Your task to perform on an android device: toggle pop-ups in chrome Image 0: 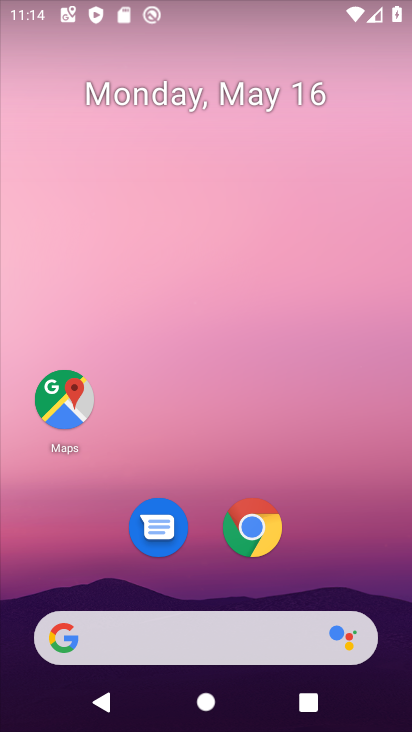
Step 0: drag from (191, 659) to (238, 190)
Your task to perform on an android device: toggle pop-ups in chrome Image 1: 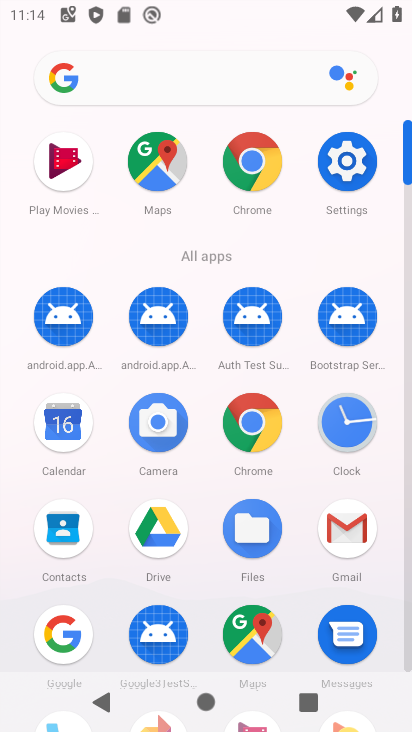
Step 1: click (239, 178)
Your task to perform on an android device: toggle pop-ups in chrome Image 2: 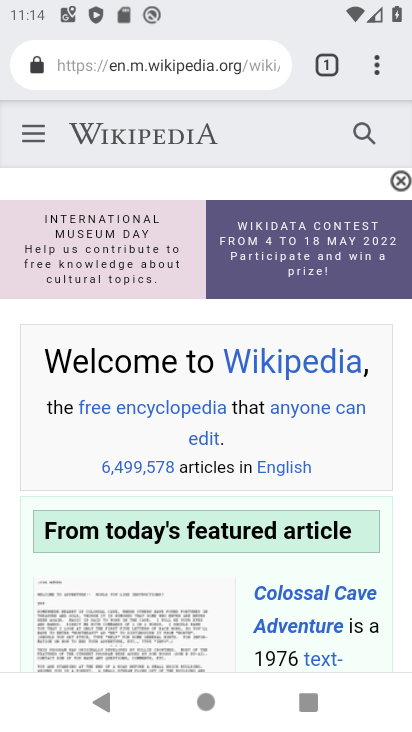
Step 2: click (377, 76)
Your task to perform on an android device: toggle pop-ups in chrome Image 3: 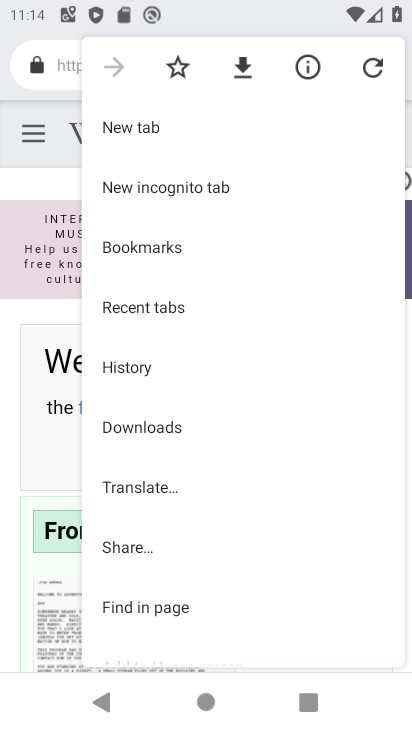
Step 3: drag from (159, 554) to (220, 366)
Your task to perform on an android device: toggle pop-ups in chrome Image 4: 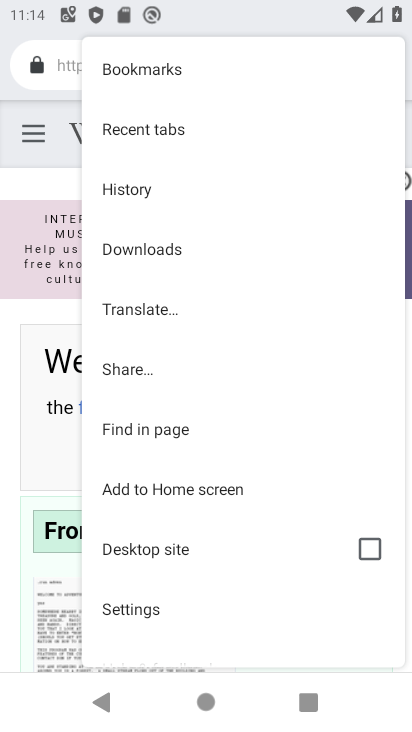
Step 4: click (179, 600)
Your task to perform on an android device: toggle pop-ups in chrome Image 5: 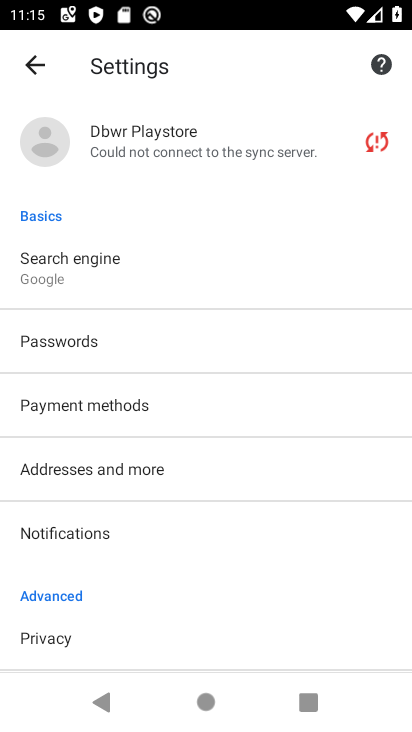
Step 5: drag from (162, 583) to (171, 373)
Your task to perform on an android device: toggle pop-ups in chrome Image 6: 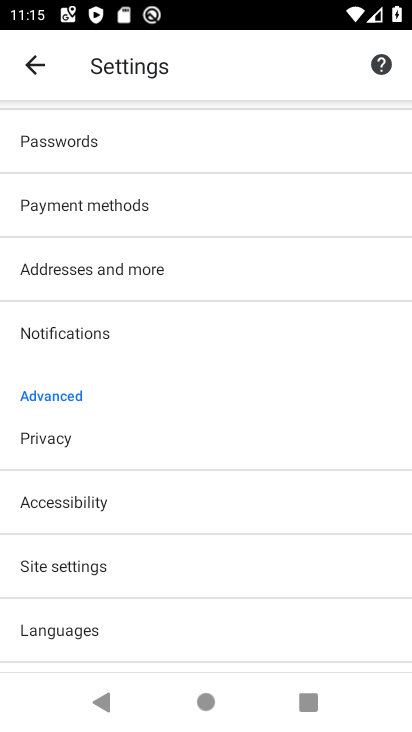
Step 6: click (98, 567)
Your task to perform on an android device: toggle pop-ups in chrome Image 7: 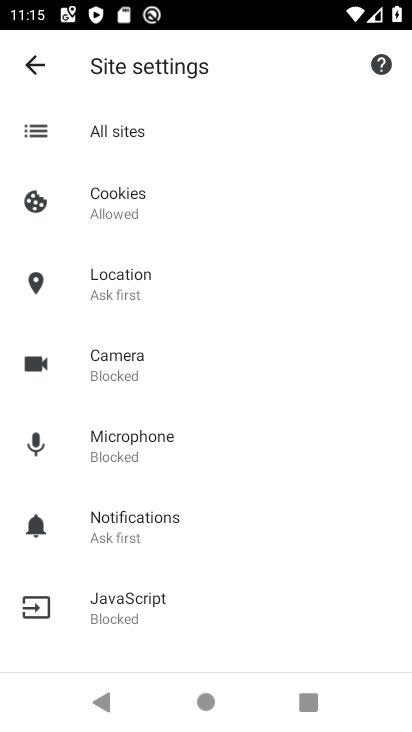
Step 7: drag from (148, 510) to (232, 234)
Your task to perform on an android device: toggle pop-ups in chrome Image 8: 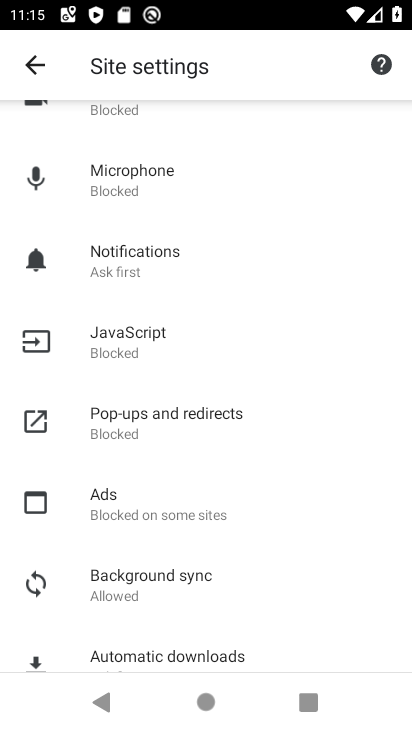
Step 8: click (155, 410)
Your task to perform on an android device: toggle pop-ups in chrome Image 9: 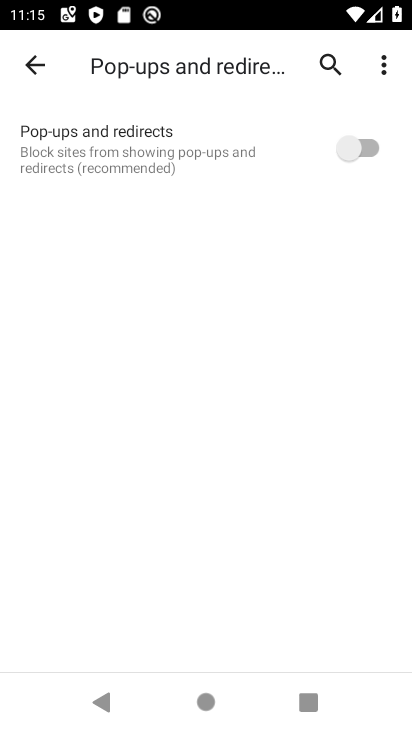
Step 9: task complete